Your task to perform on an android device: Clear all items from cart on target.com. Search for razer kraken on target.com, select the first entry, add it to the cart, then select checkout. Image 0: 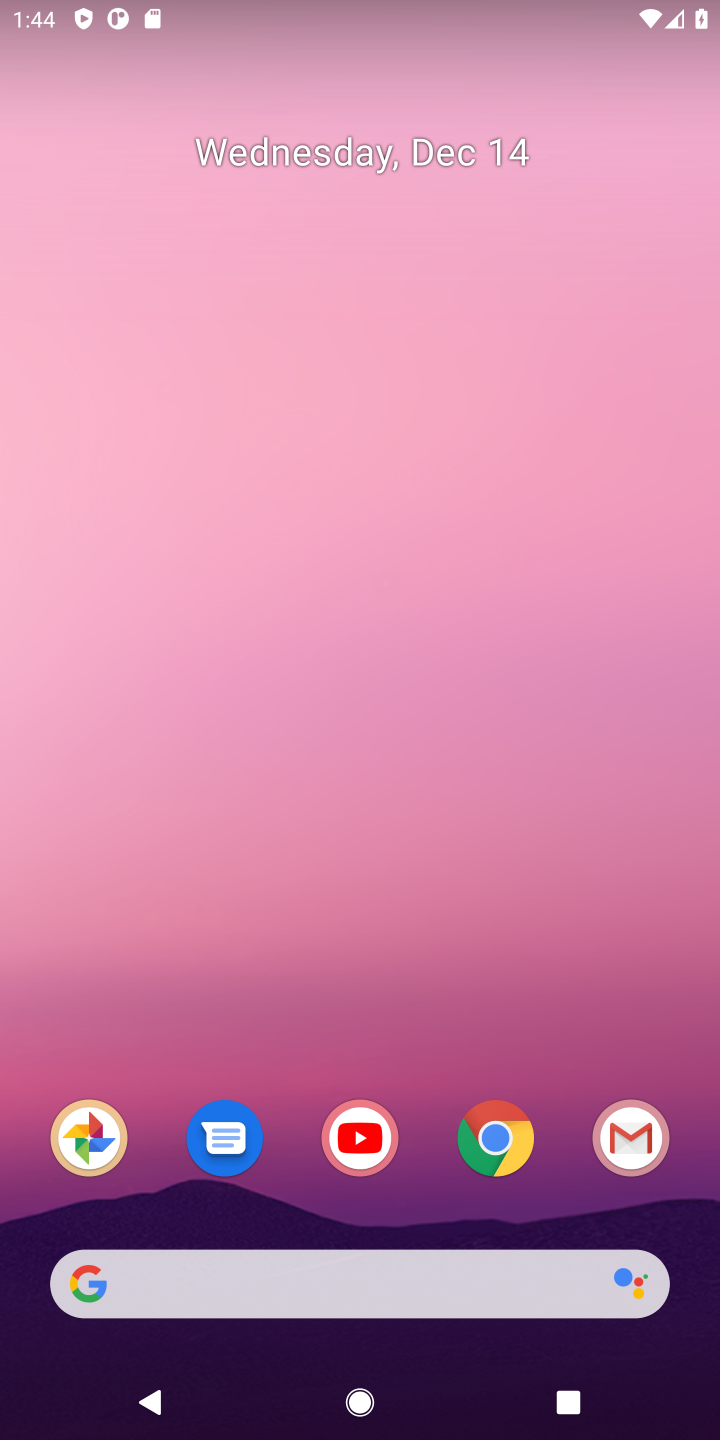
Step 0: click (505, 1153)
Your task to perform on an android device: Clear all items from cart on target.com. Search for razer kraken on target.com, select the first entry, add it to the cart, then select checkout. Image 1: 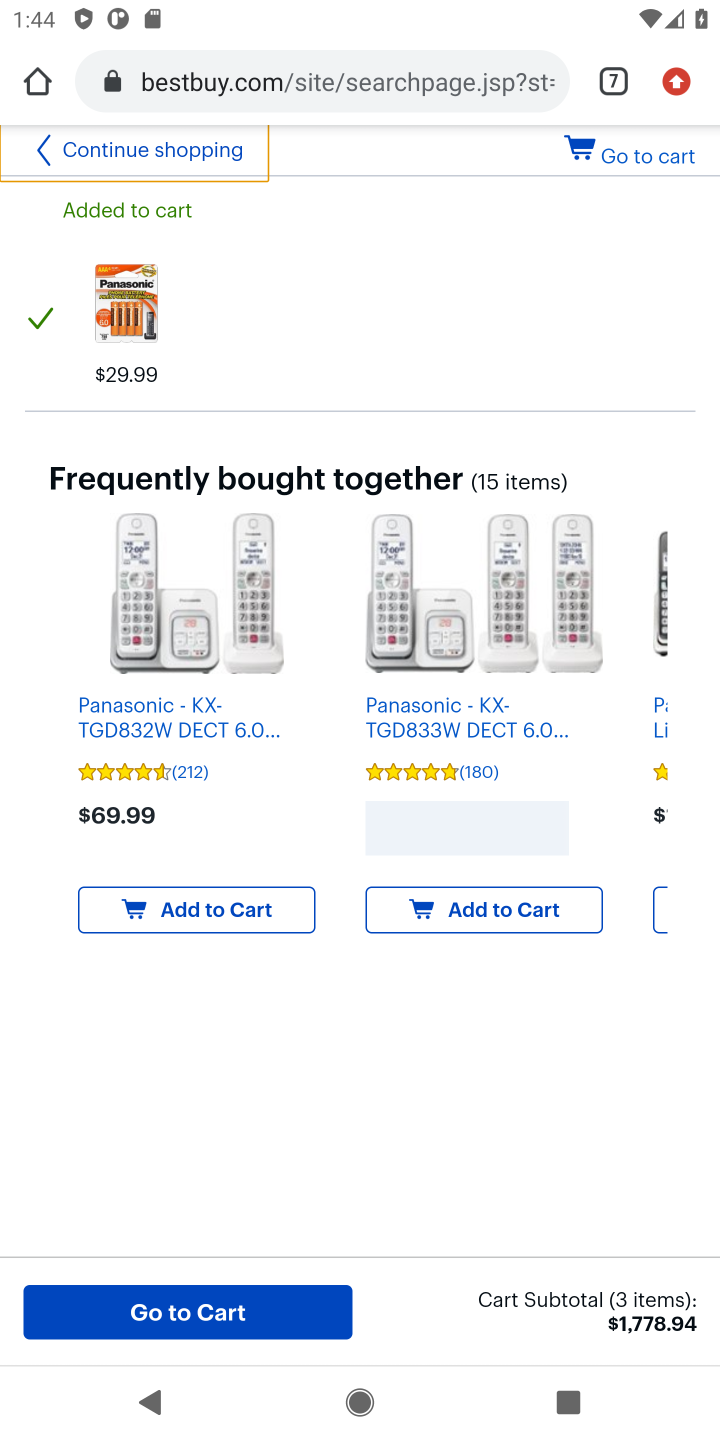
Step 1: click (208, 148)
Your task to perform on an android device: Clear all items from cart on target.com. Search for razer kraken on target.com, select the first entry, add it to the cart, then select checkout. Image 2: 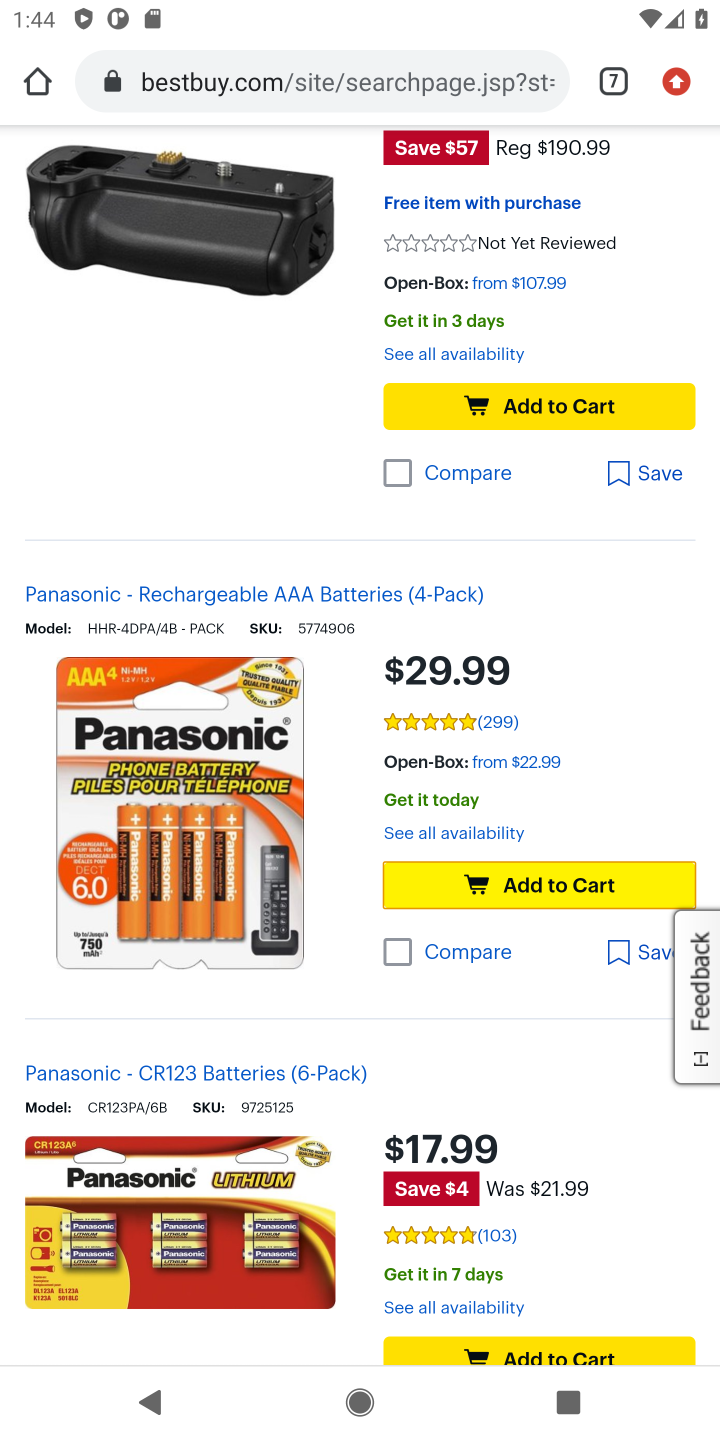
Step 2: click (621, 83)
Your task to perform on an android device: Clear all items from cart on target.com. Search for razer kraken on target.com, select the first entry, add it to the cart, then select checkout. Image 3: 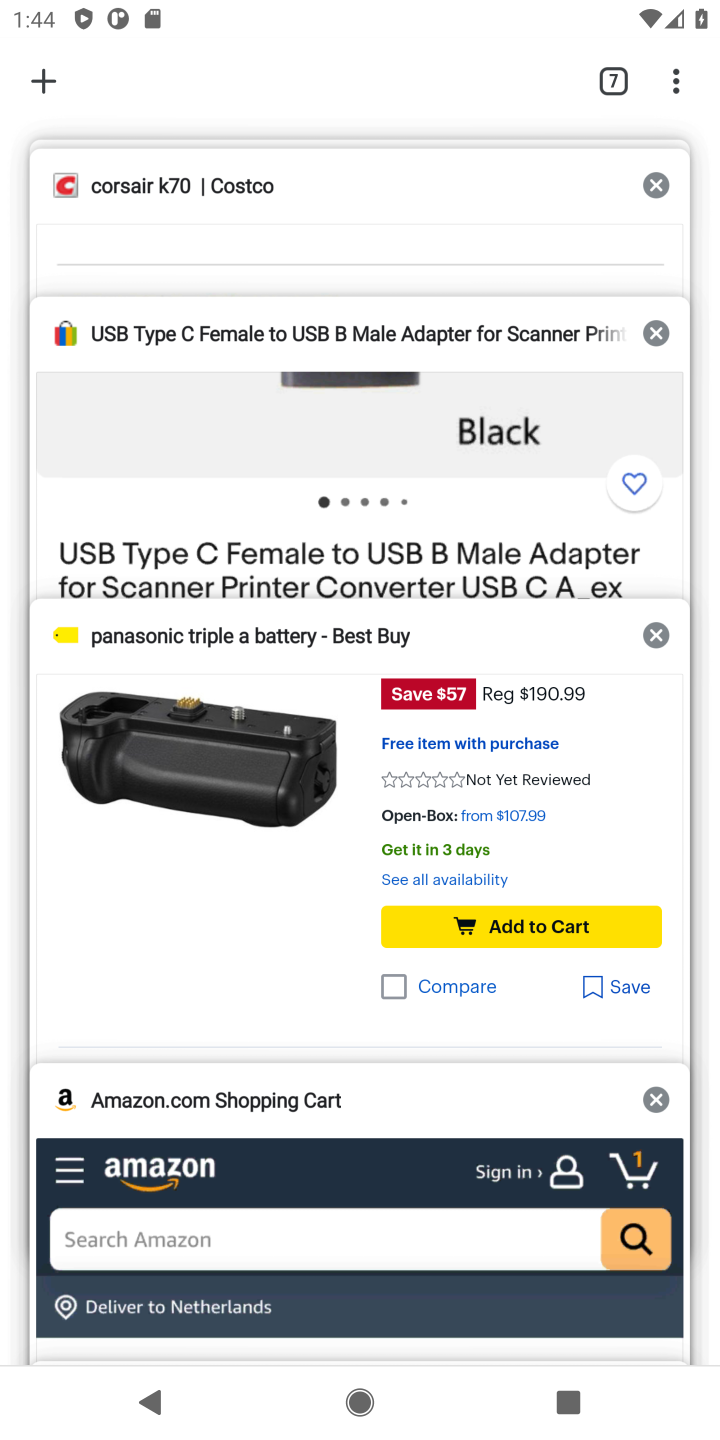
Step 3: drag from (208, 1288) to (307, 799)
Your task to perform on an android device: Clear all items from cart on target.com. Search for razer kraken on target.com, select the first entry, add it to the cart, then select checkout. Image 4: 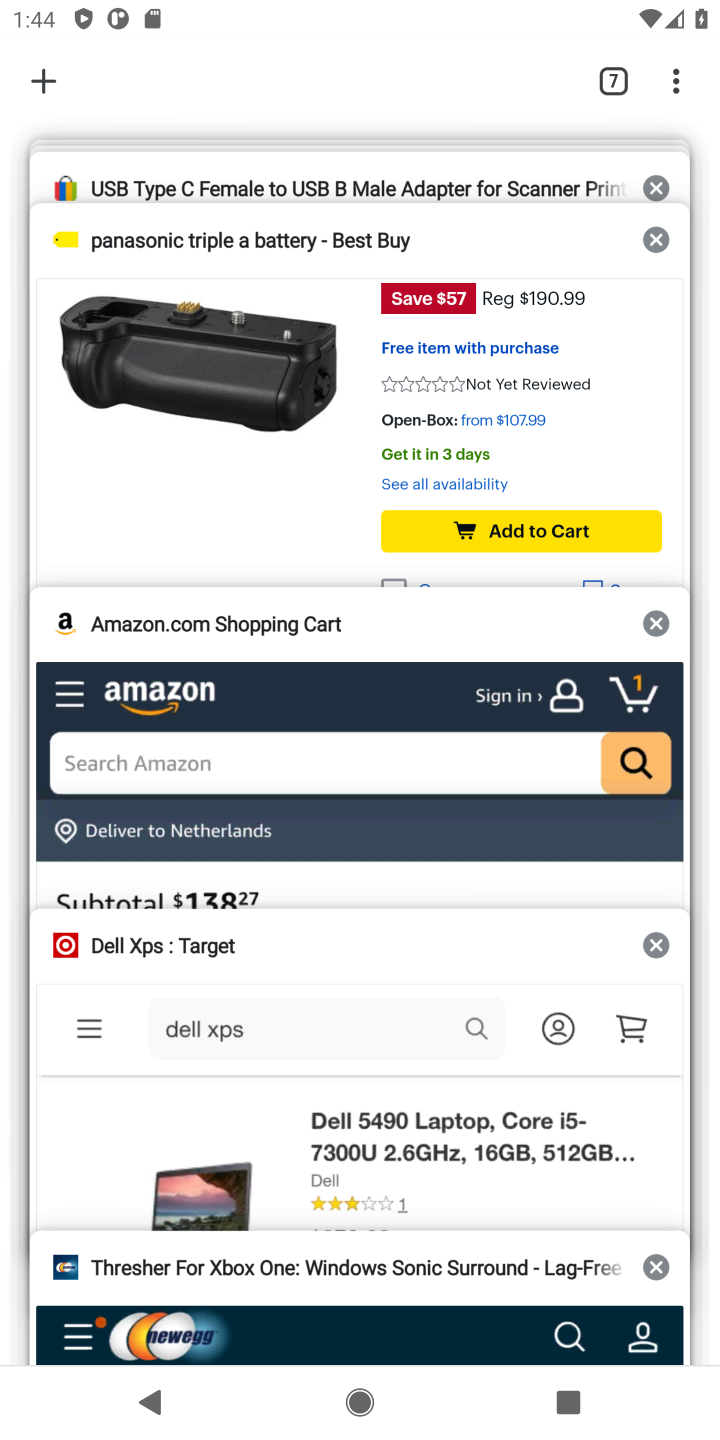
Step 4: click (197, 1045)
Your task to perform on an android device: Clear all items from cart on target.com. Search for razer kraken on target.com, select the first entry, add it to the cart, then select checkout. Image 5: 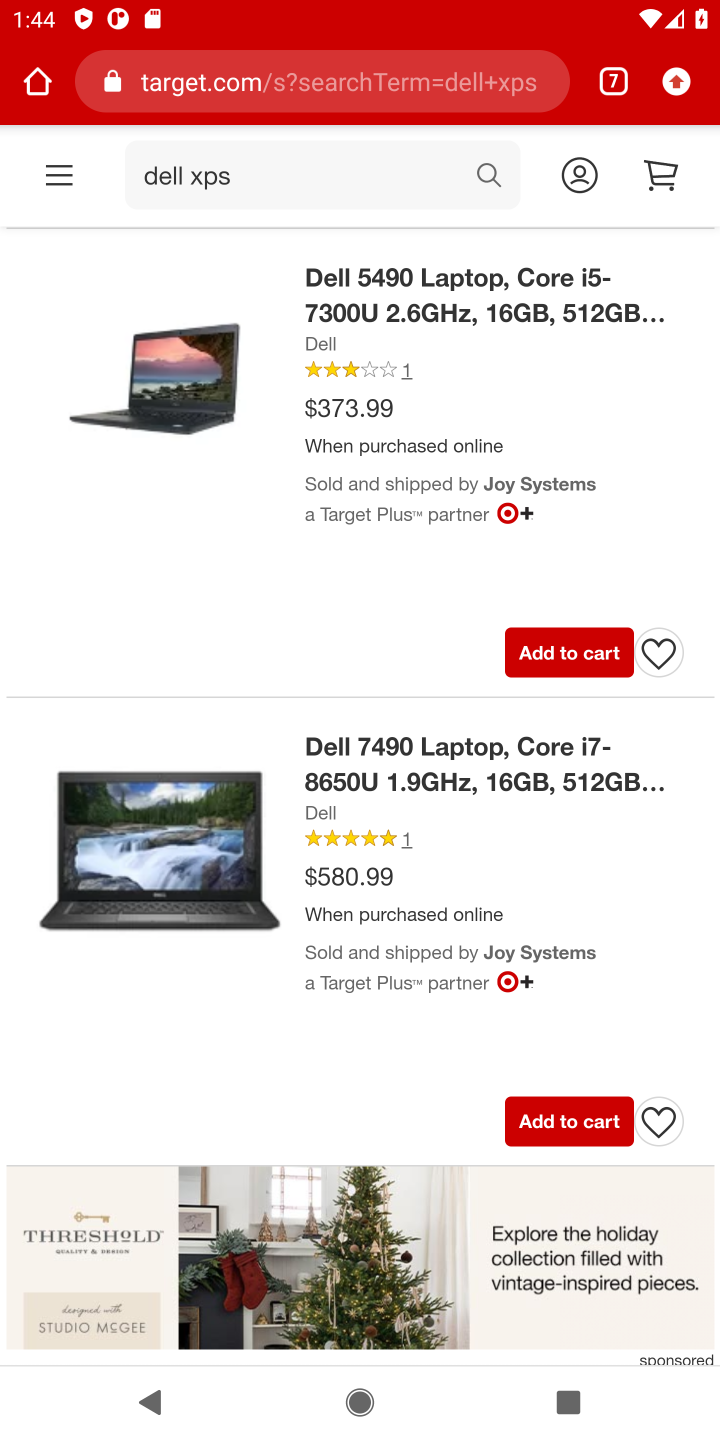
Step 5: click (303, 183)
Your task to perform on an android device: Clear all items from cart on target.com. Search for razer kraken on target.com, select the first entry, add it to the cart, then select checkout. Image 6: 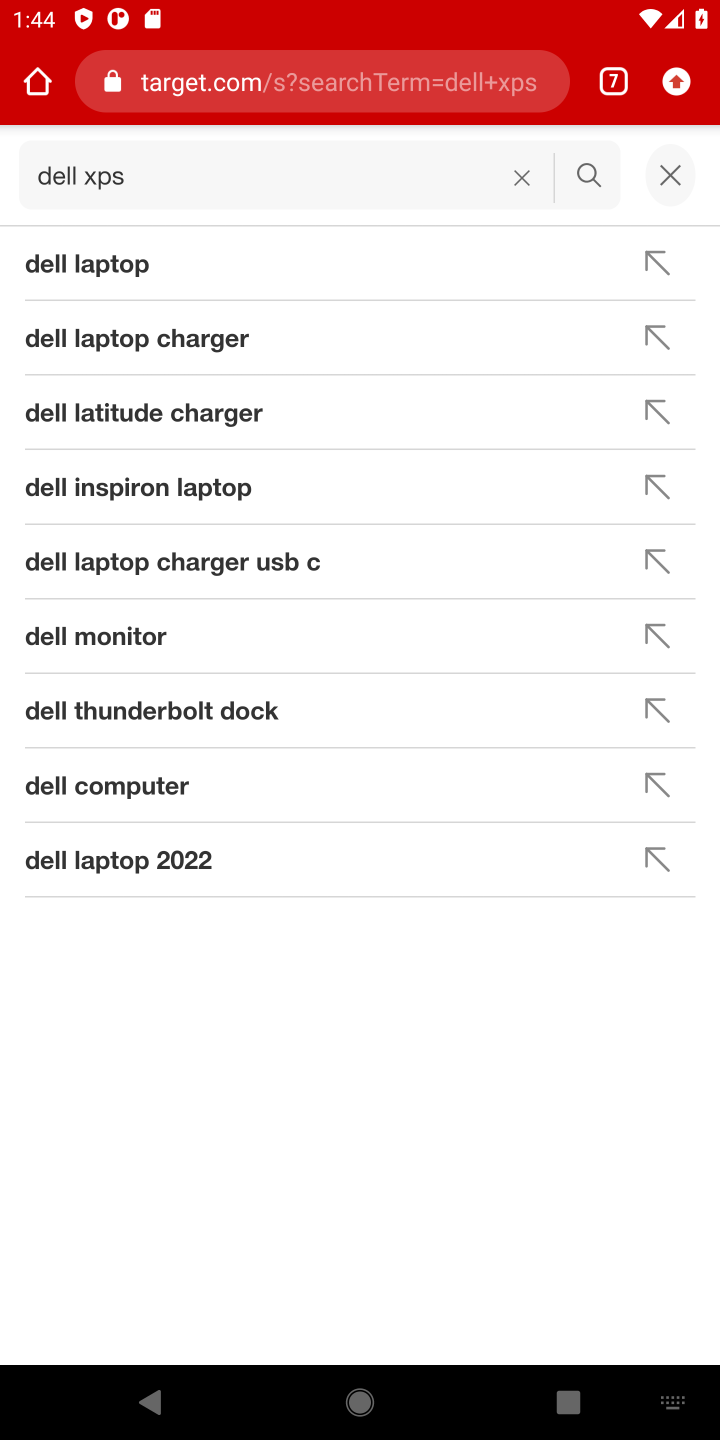
Step 6: click (529, 183)
Your task to perform on an android device: Clear all items from cart on target.com. Search for razer kraken on target.com, select the first entry, add it to the cart, then select checkout. Image 7: 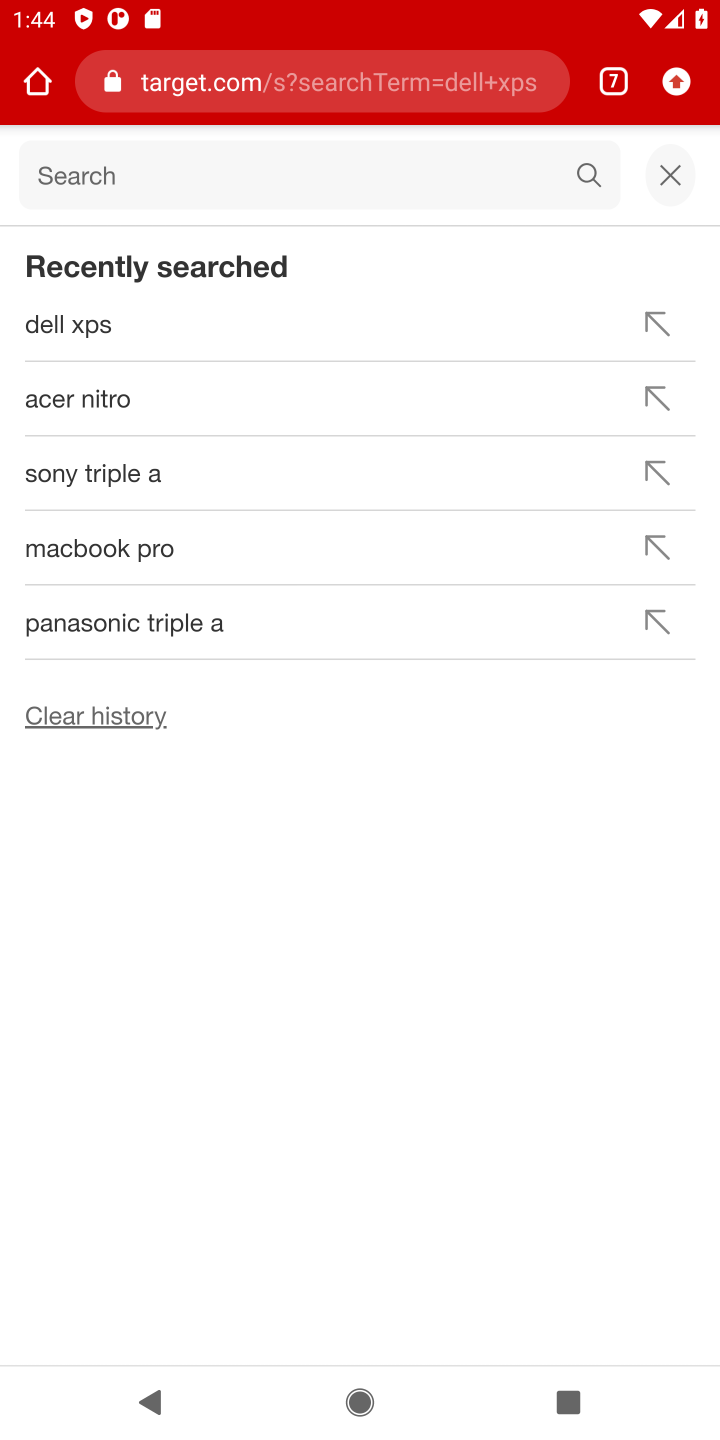
Step 7: type "razer kraken"
Your task to perform on an android device: Clear all items from cart on target.com. Search for razer kraken on target.com, select the first entry, add it to the cart, then select checkout. Image 8: 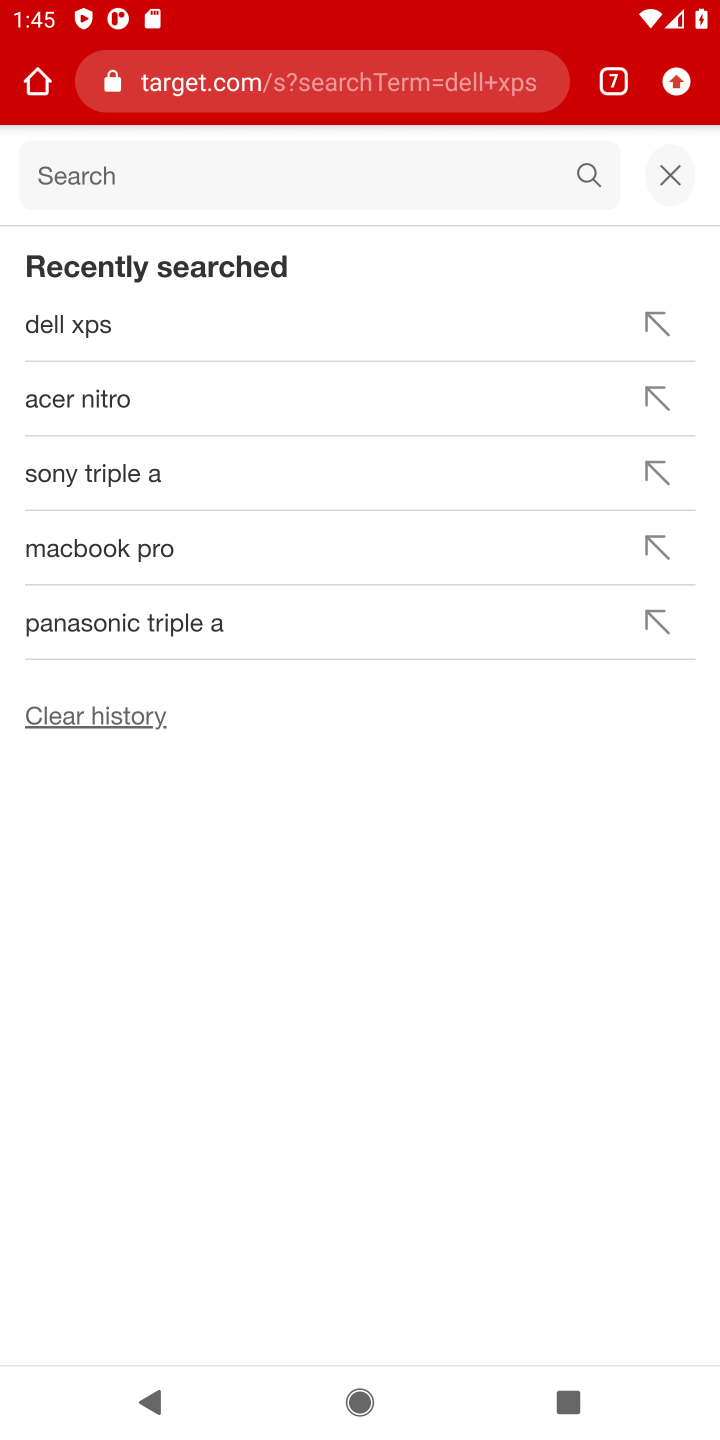
Step 8: click (162, 204)
Your task to perform on an android device: Clear all items from cart on target.com. Search for razer kraken on target.com, select the first entry, add it to the cart, then select checkout. Image 9: 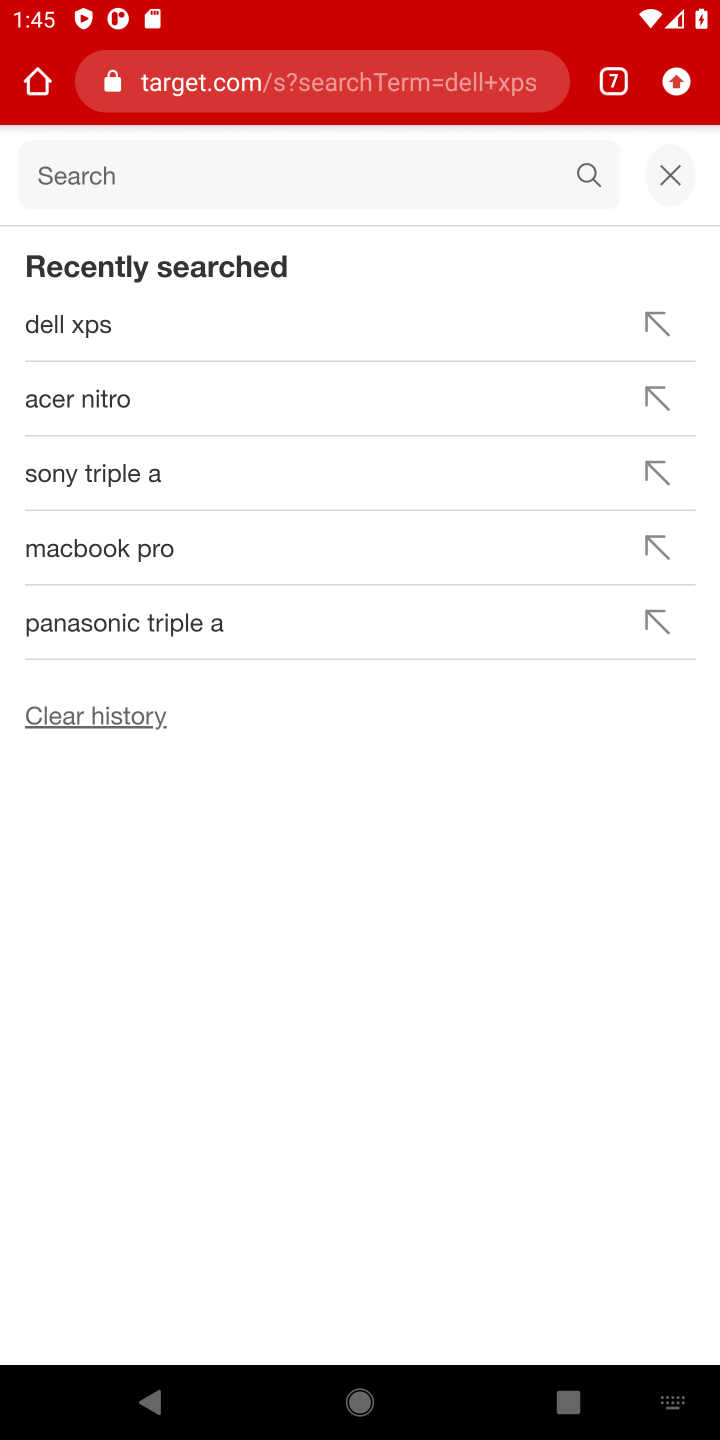
Step 9: type "razer kraken"
Your task to perform on an android device: Clear all items from cart on target.com. Search for razer kraken on target.com, select the first entry, add it to the cart, then select checkout. Image 10: 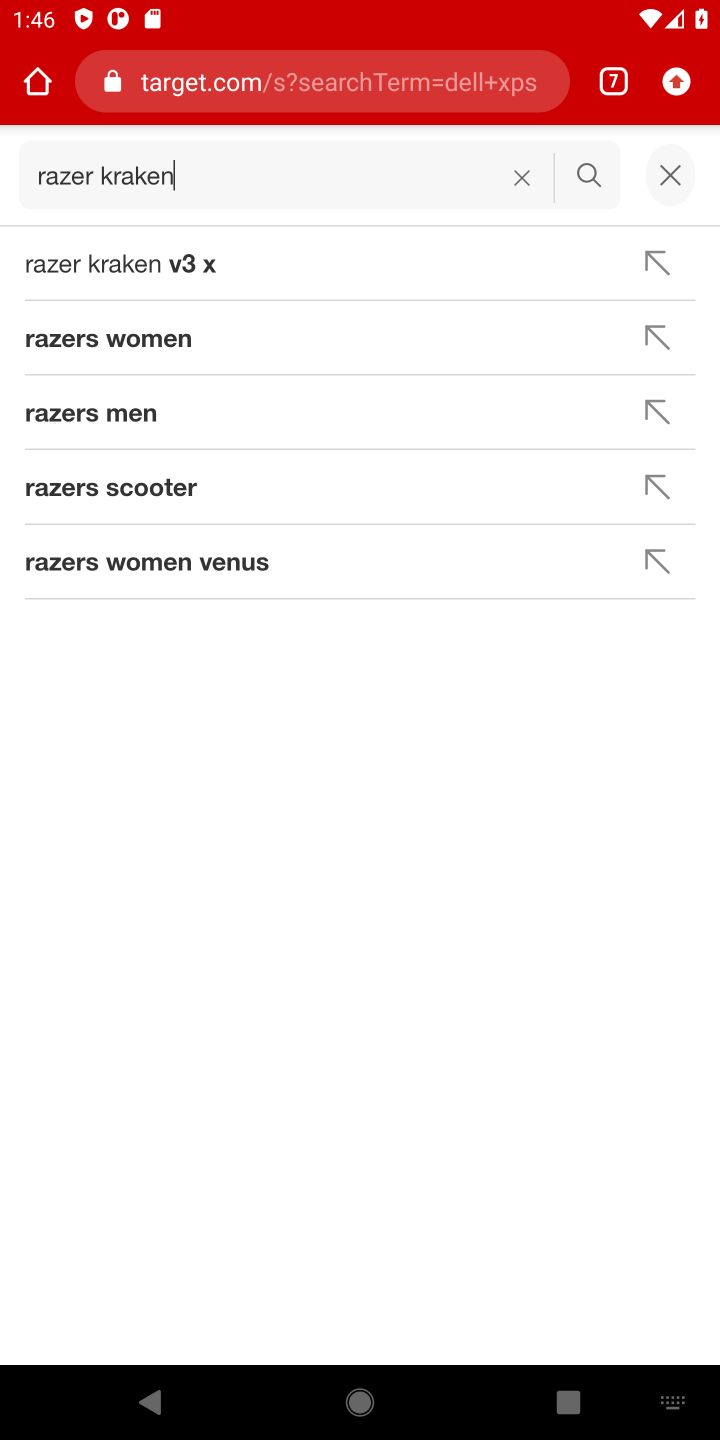
Step 10: click (590, 163)
Your task to perform on an android device: Clear all items from cart on target.com. Search for razer kraken on target.com, select the first entry, add it to the cart, then select checkout. Image 11: 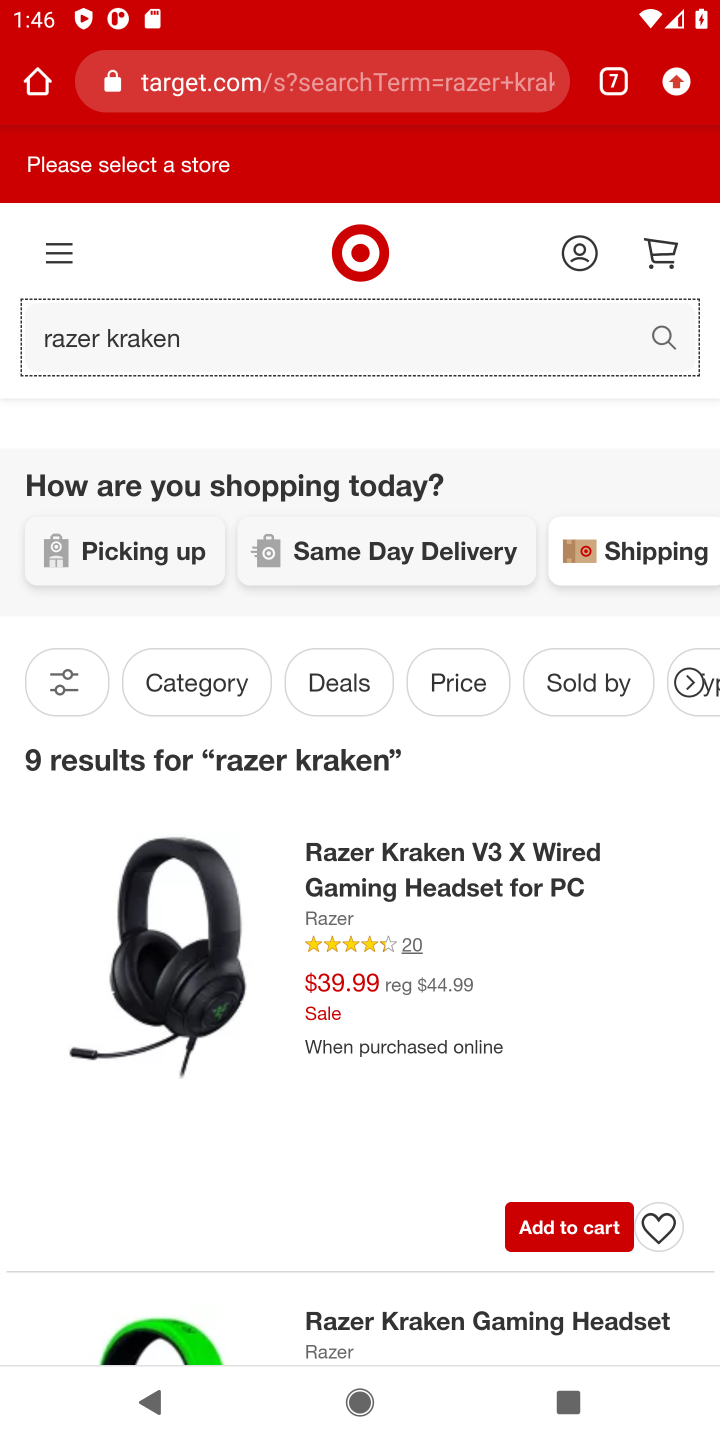
Step 11: click (569, 1229)
Your task to perform on an android device: Clear all items from cart on target.com. Search for razer kraken on target.com, select the first entry, add it to the cart, then select checkout. Image 12: 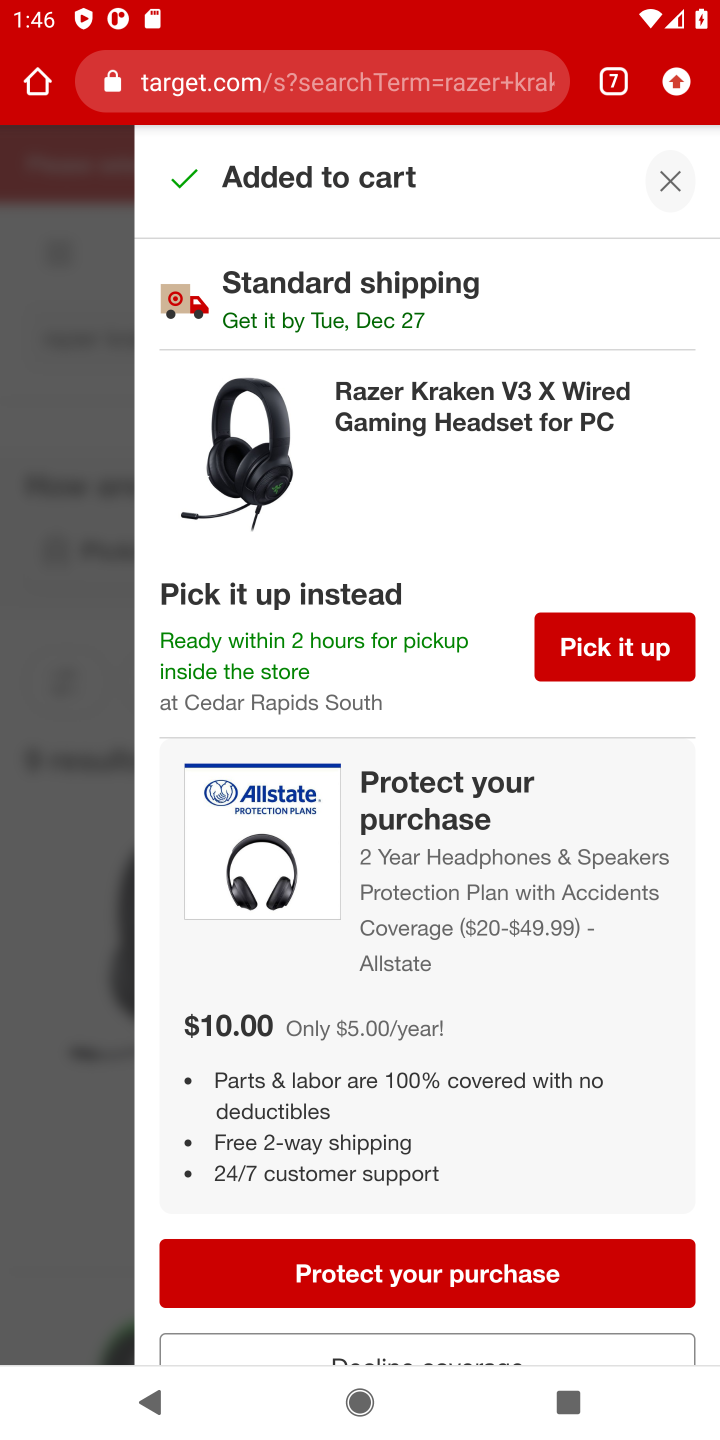
Step 12: task complete